Your task to perform on an android device: turn off location Image 0: 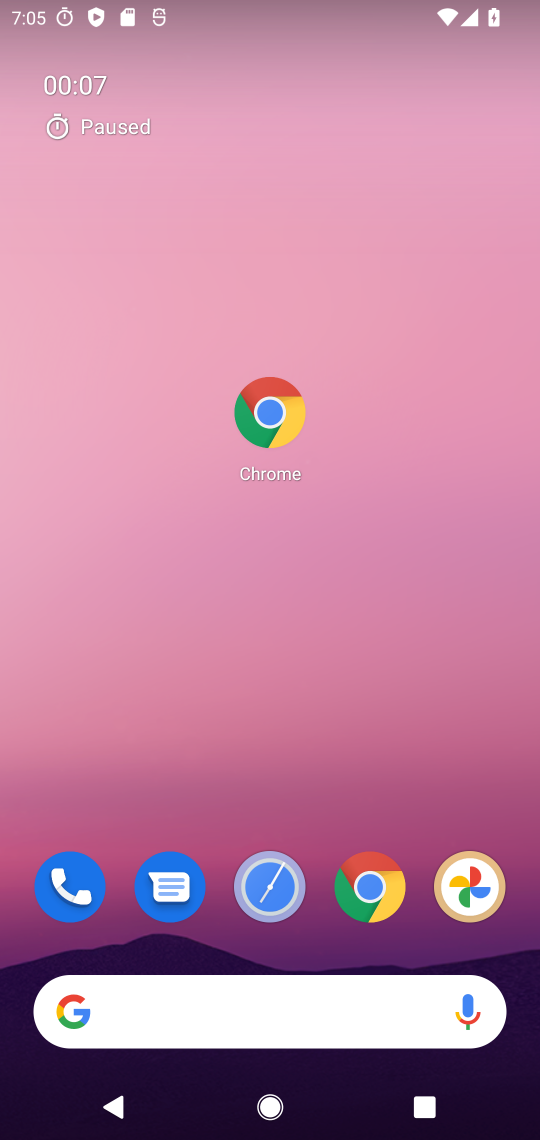
Step 0: drag from (394, 877) to (332, 103)
Your task to perform on an android device: turn off location Image 1: 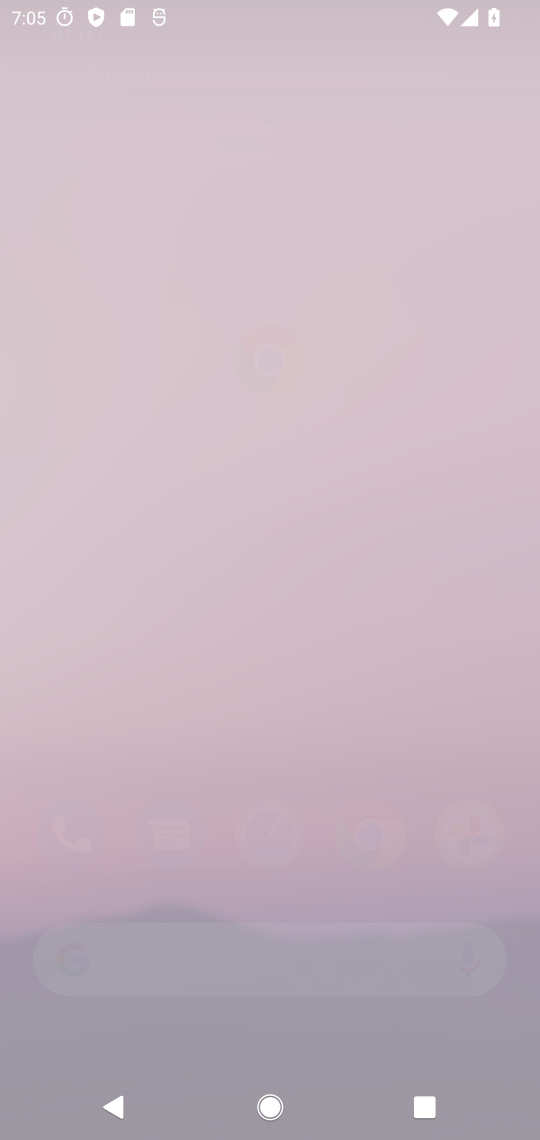
Step 1: drag from (447, 346) to (464, 269)
Your task to perform on an android device: turn off location Image 2: 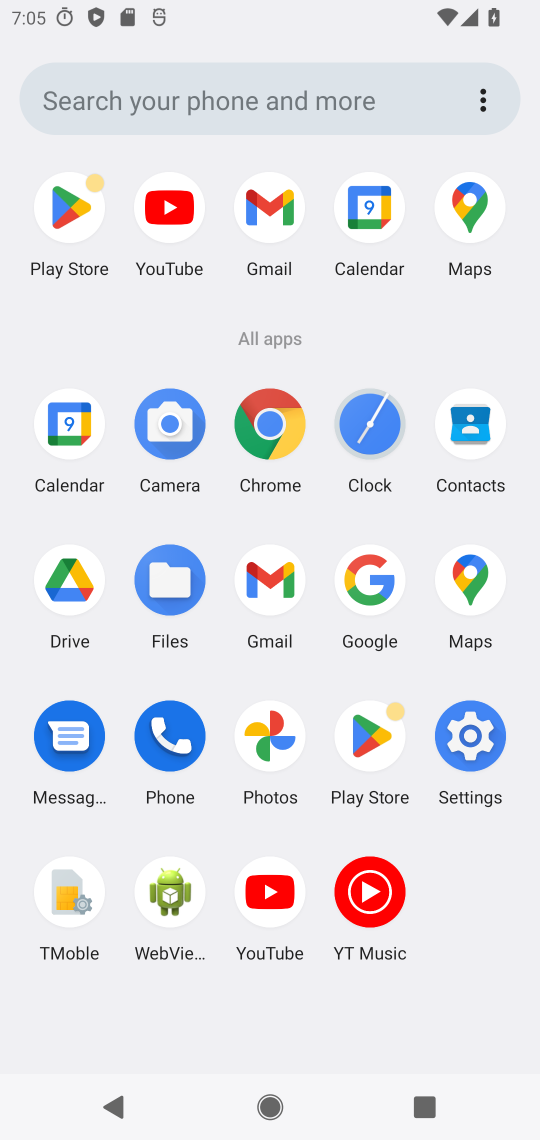
Step 2: click (448, 750)
Your task to perform on an android device: turn off location Image 3: 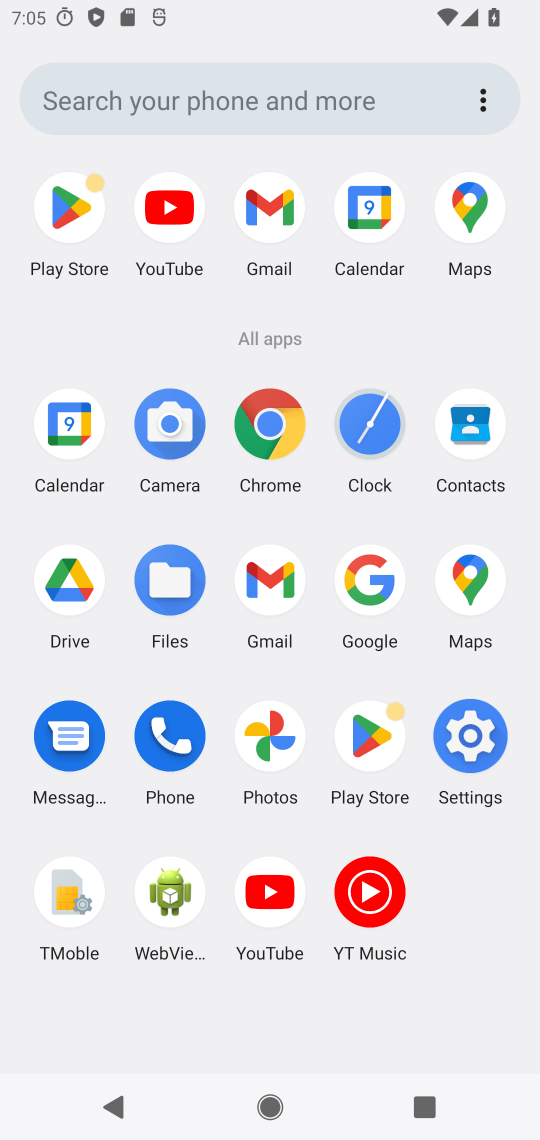
Step 3: click (450, 750)
Your task to perform on an android device: turn off location Image 4: 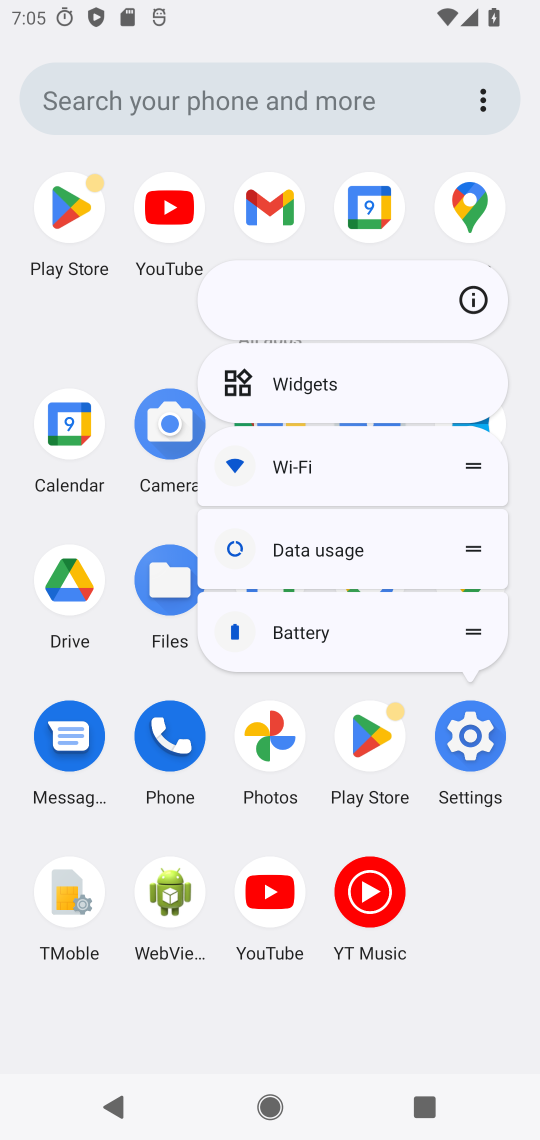
Step 4: click (452, 754)
Your task to perform on an android device: turn off location Image 5: 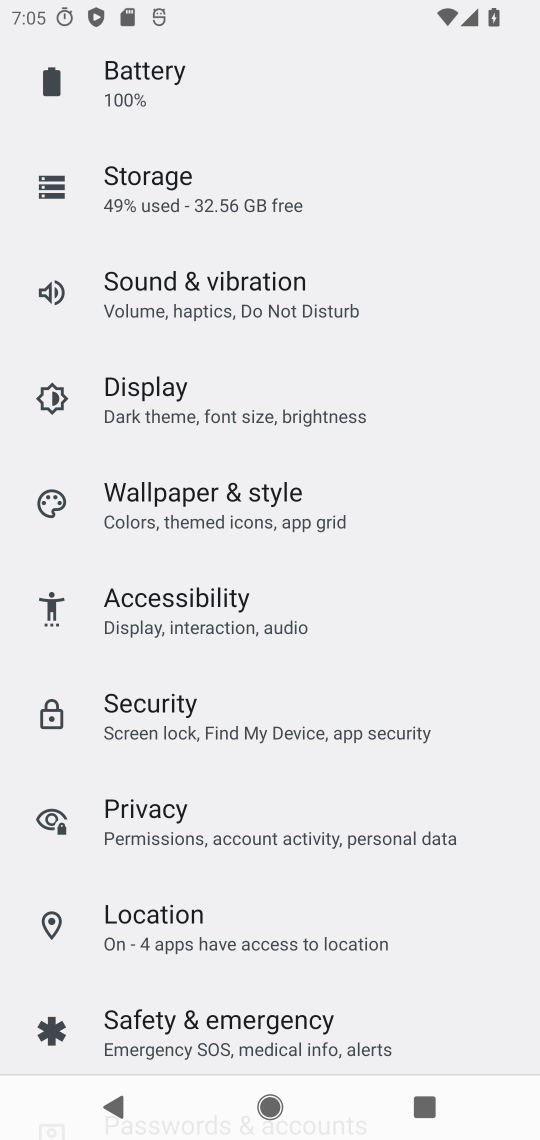
Step 5: click (457, 749)
Your task to perform on an android device: turn off location Image 6: 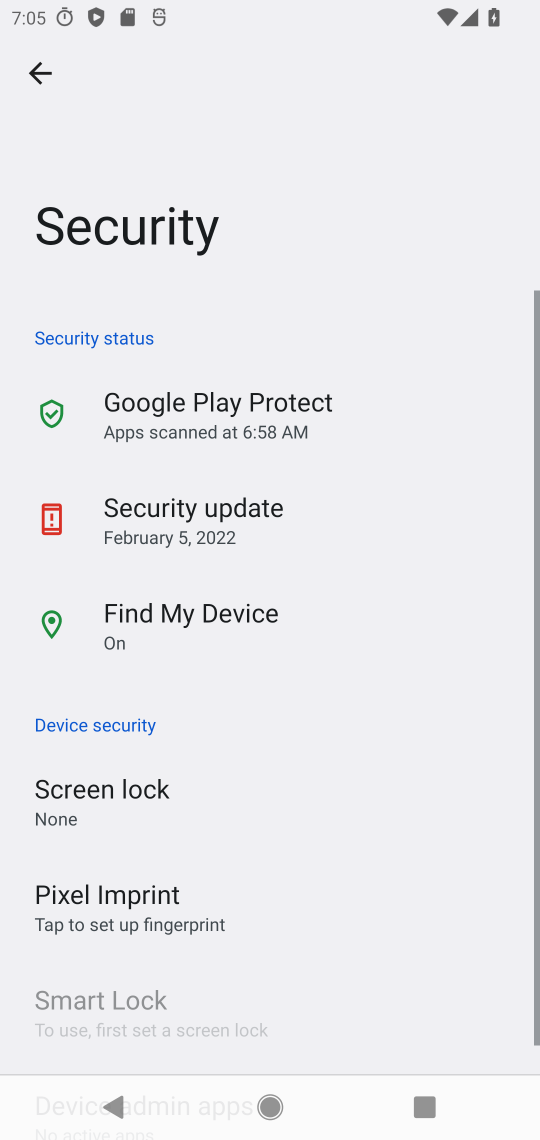
Step 6: click (35, 101)
Your task to perform on an android device: turn off location Image 7: 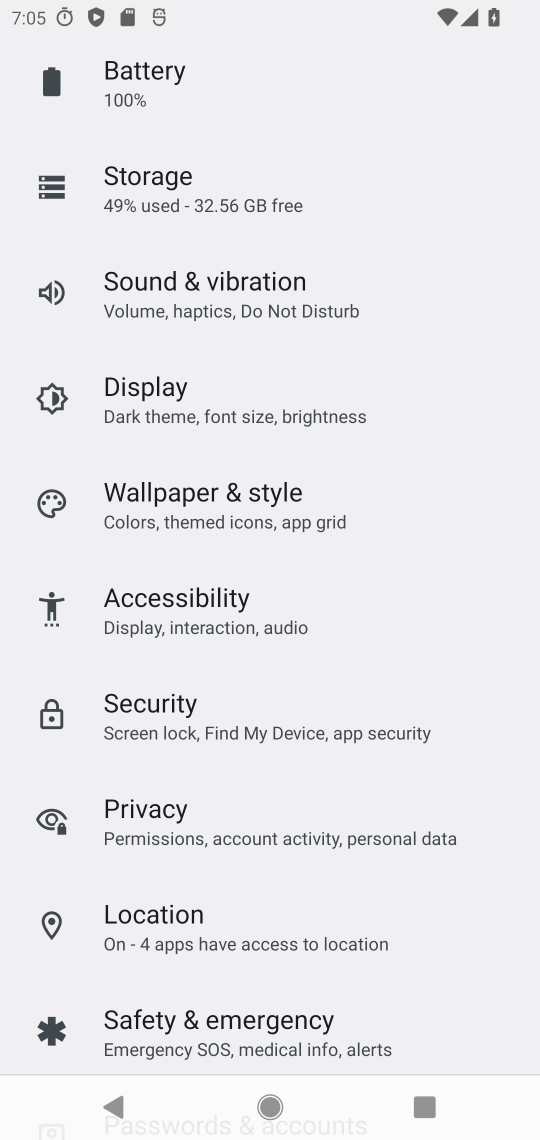
Step 7: click (156, 936)
Your task to perform on an android device: turn off location Image 8: 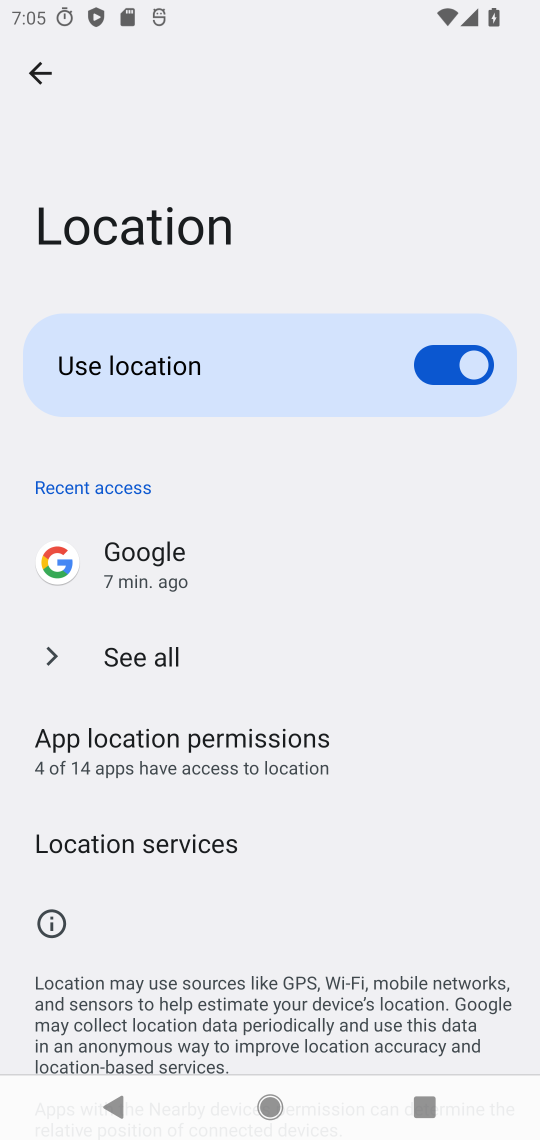
Step 8: click (457, 367)
Your task to perform on an android device: turn off location Image 9: 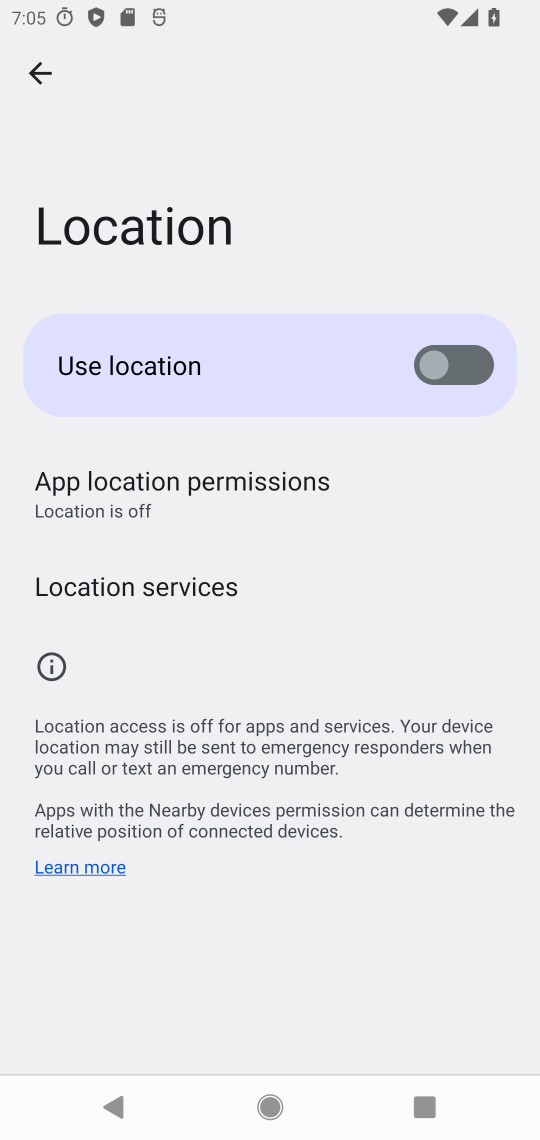
Step 9: task complete